Your task to perform on an android device: toggle pop-ups in chrome Image 0: 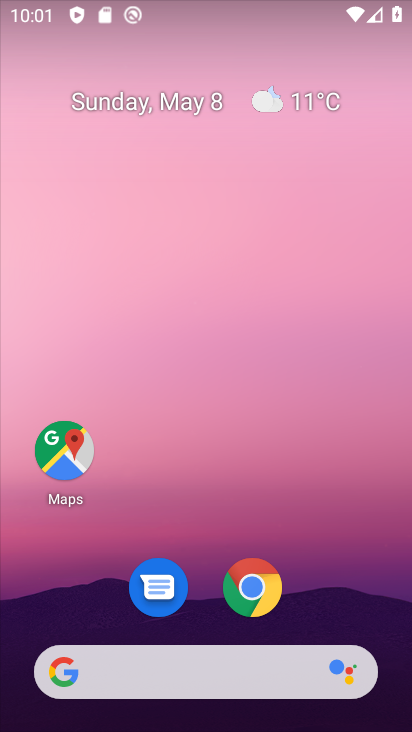
Step 0: click (261, 584)
Your task to perform on an android device: toggle pop-ups in chrome Image 1: 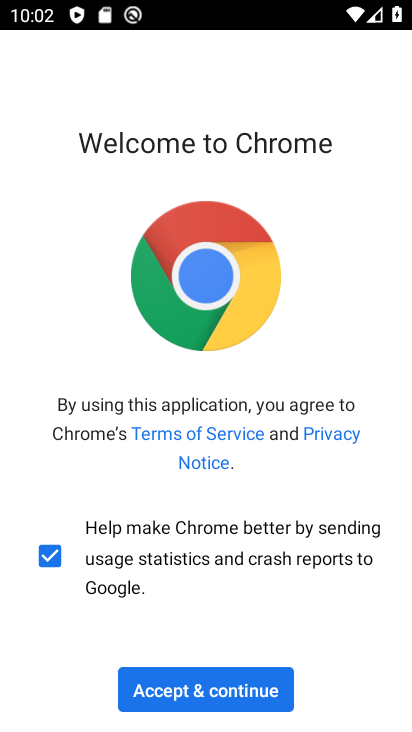
Step 1: click (198, 687)
Your task to perform on an android device: toggle pop-ups in chrome Image 2: 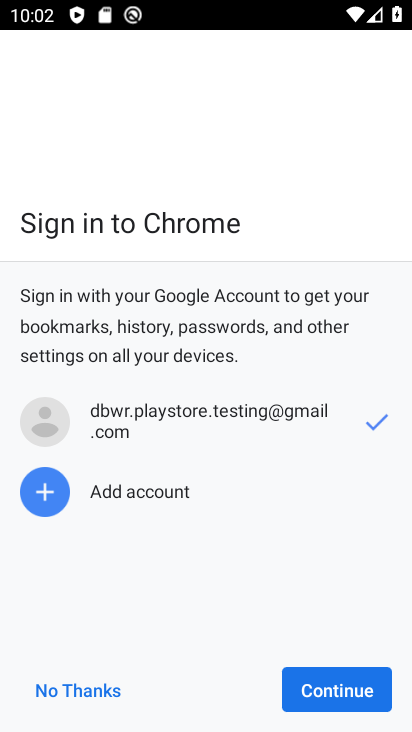
Step 2: click (335, 685)
Your task to perform on an android device: toggle pop-ups in chrome Image 3: 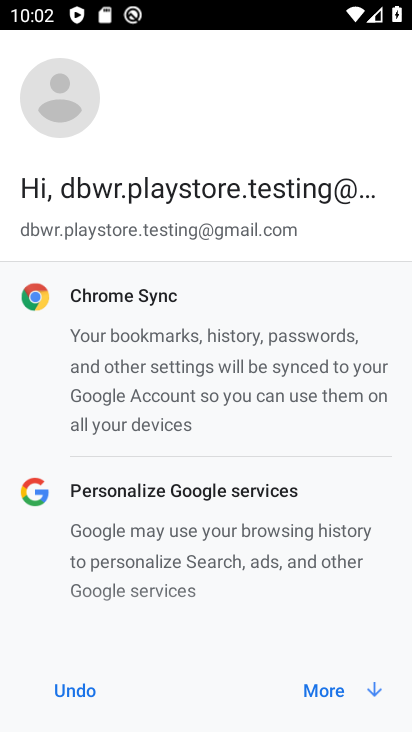
Step 3: click (335, 685)
Your task to perform on an android device: toggle pop-ups in chrome Image 4: 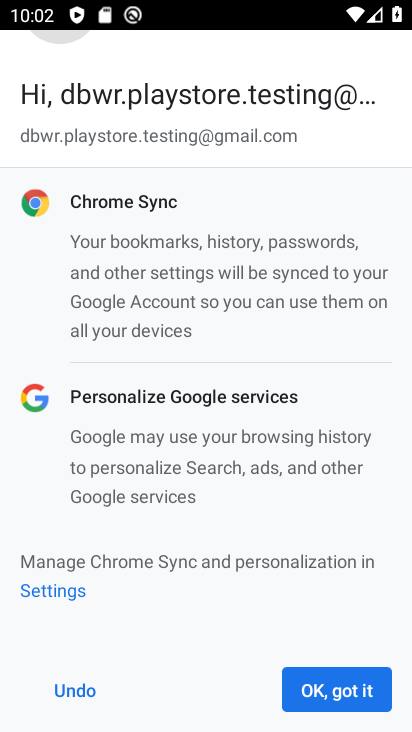
Step 4: click (335, 685)
Your task to perform on an android device: toggle pop-ups in chrome Image 5: 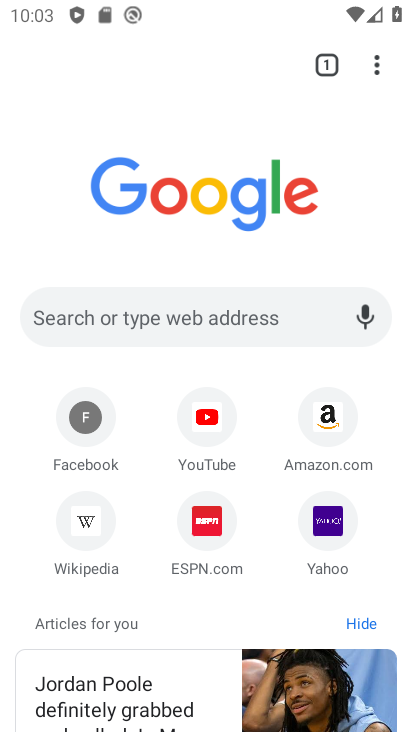
Step 5: click (374, 69)
Your task to perform on an android device: toggle pop-ups in chrome Image 6: 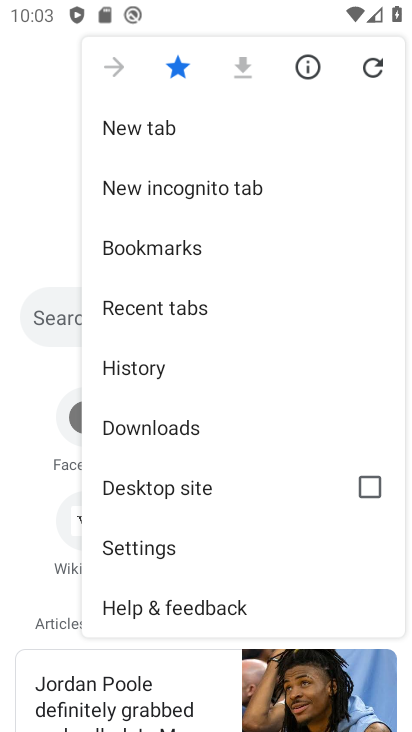
Step 6: click (177, 551)
Your task to perform on an android device: toggle pop-ups in chrome Image 7: 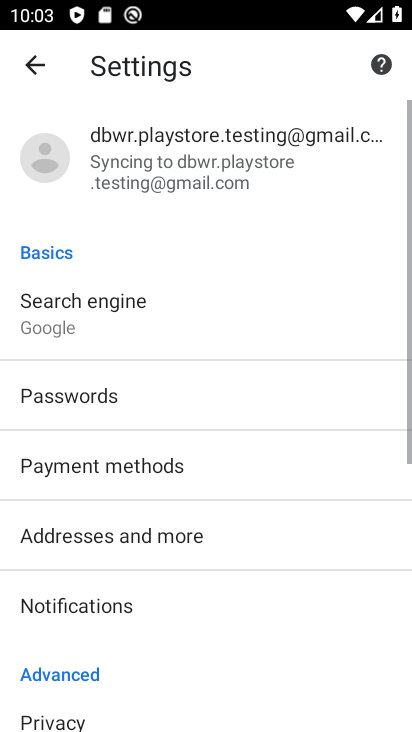
Step 7: drag from (184, 515) to (138, 42)
Your task to perform on an android device: toggle pop-ups in chrome Image 8: 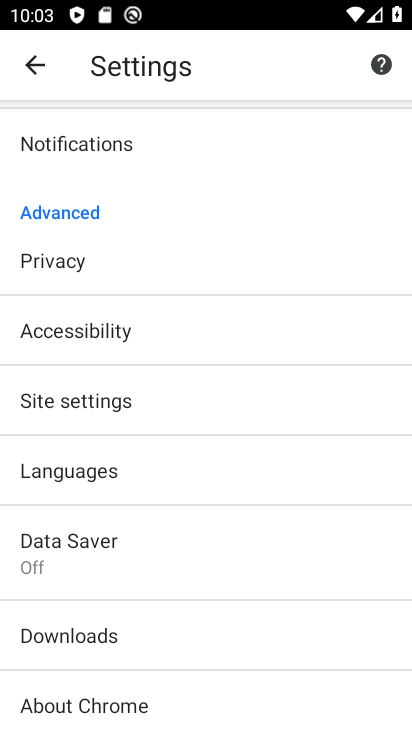
Step 8: click (98, 410)
Your task to perform on an android device: toggle pop-ups in chrome Image 9: 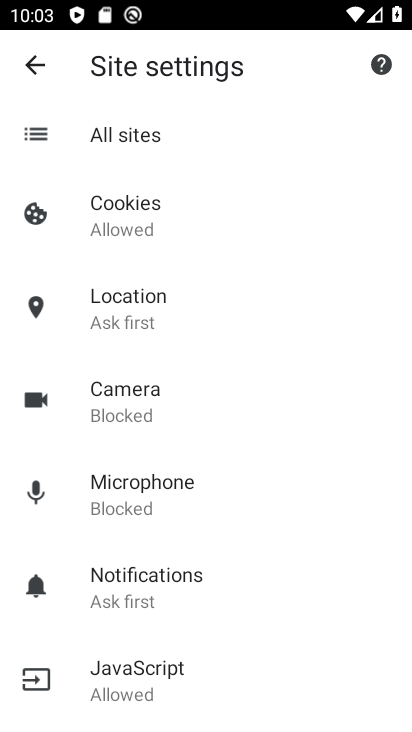
Step 9: drag from (200, 585) to (219, 72)
Your task to perform on an android device: toggle pop-ups in chrome Image 10: 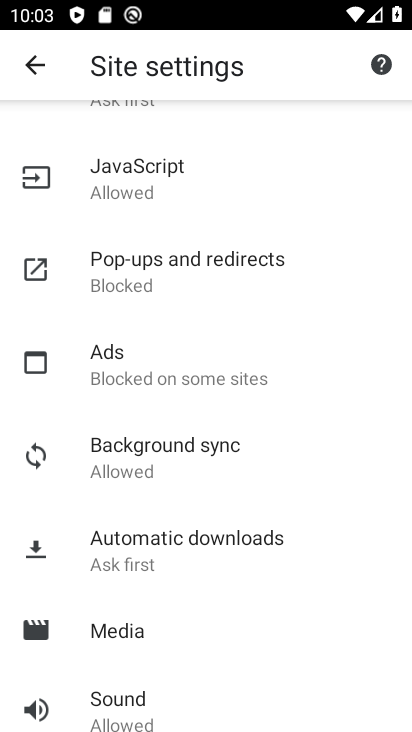
Step 10: click (141, 271)
Your task to perform on an android device: toggle pop-ups in chrome Image 11: 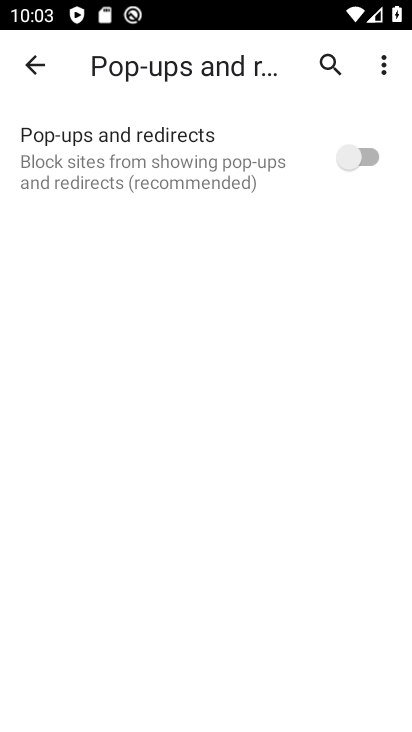
Step 11: click (362, 178)
Your task to perform on an android device: toggle pop-ups in chrome Image 12: 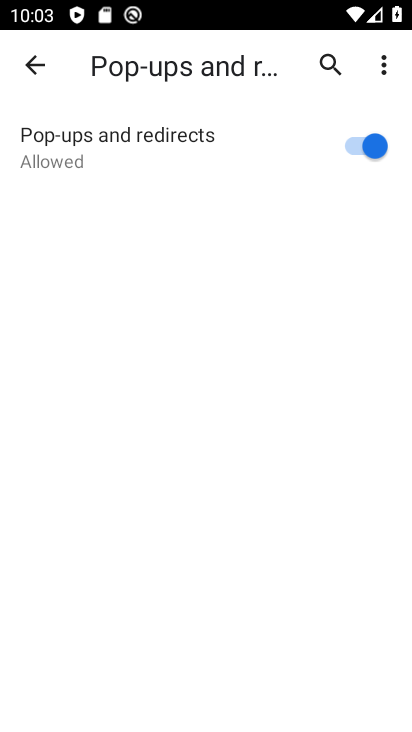
Step 12: task complete